Your task to perform on an android device: open a new tab in the chrome app Image 0: 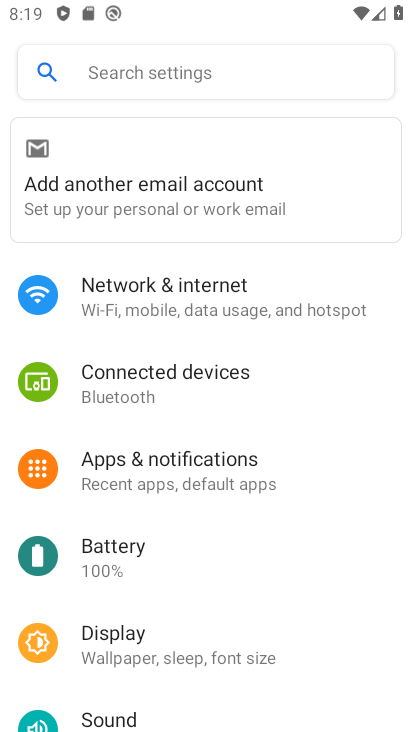
Step 0: press home button
Your task to perform on an android device: open a new tab in the chrome app Image 1: 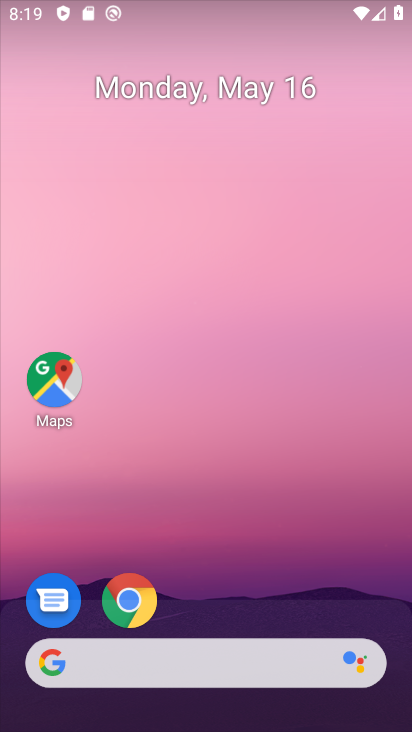
Step 1: click (161, 601)
Your task to perform on an android device: open a new tab in the chrome app Image 2: 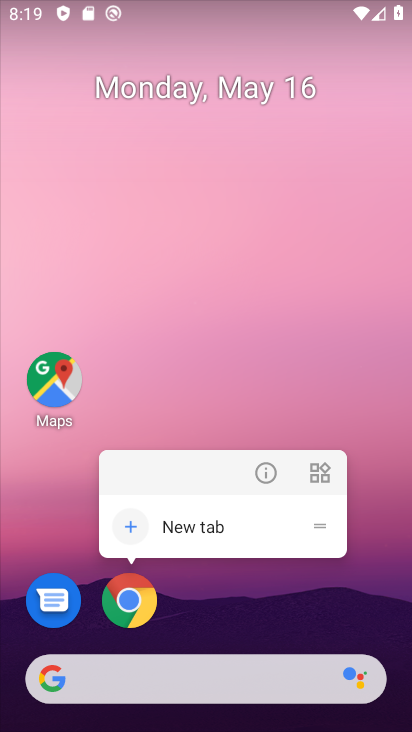
Step 2: click (139, 611)
Your task to perform on an android device: open a new tab in the chrome app Image 3: 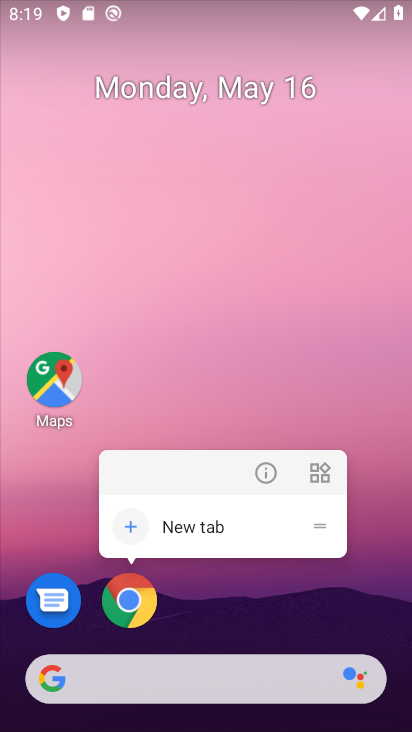
Step 3: click (124, 619)
Your task to perform on an android device: open a new tab in the chrome app Image 4: 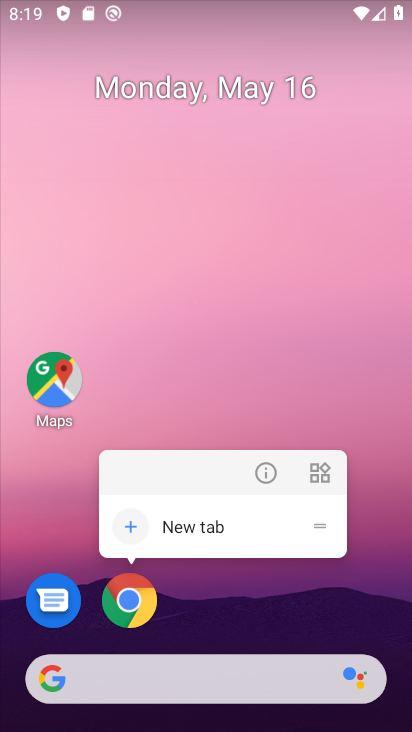
Step 4: drag from (207, 600) to (146, 55)
Your task to perform on an android device: open a new tab in the chrome app Image 5: 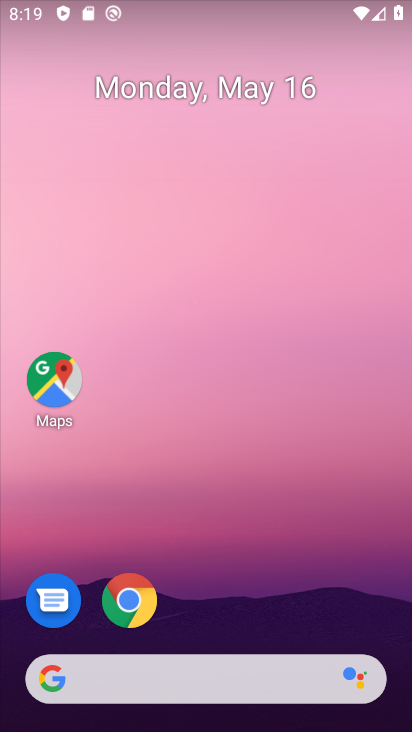
Step 5: drag from (276, 627) to (159, 10)
Your task to perform on an android device: open a new tab in the chrome app Image 6: 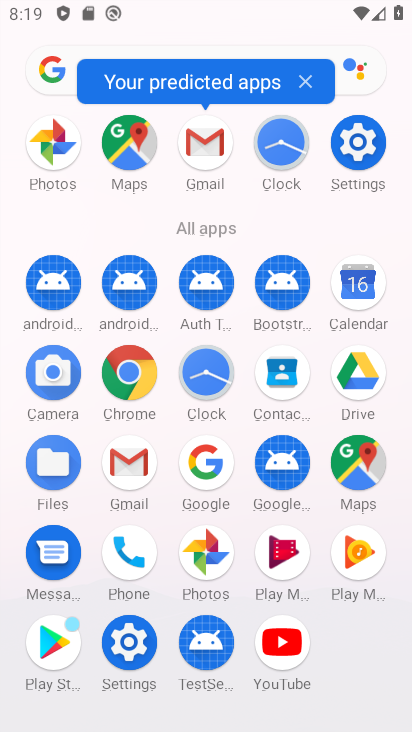
Step 6: click (136, 386)
Your task to perform on an android device: open a new tab in the chrome app Image 7: 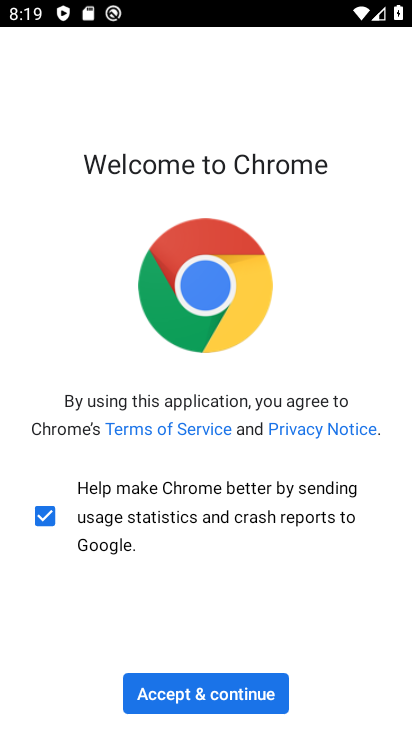
Step 7: click (185, 709)
Your task to perform on an android device: open a new tab in the chrome app Image 8: 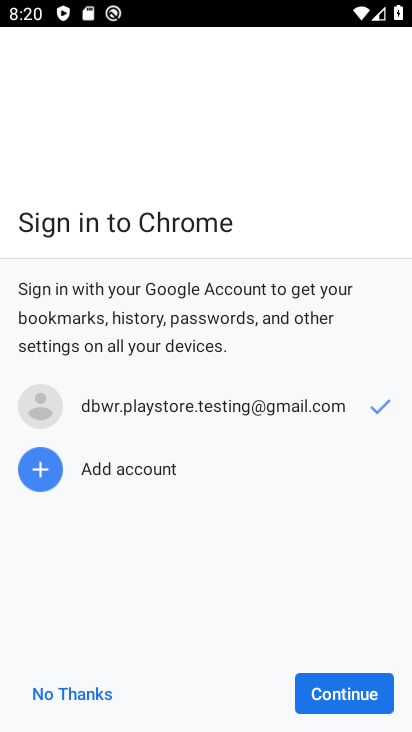
Step 8: click (318, 692)
Your task to perform on an android device: open a new tab in the chrome app Image 9: 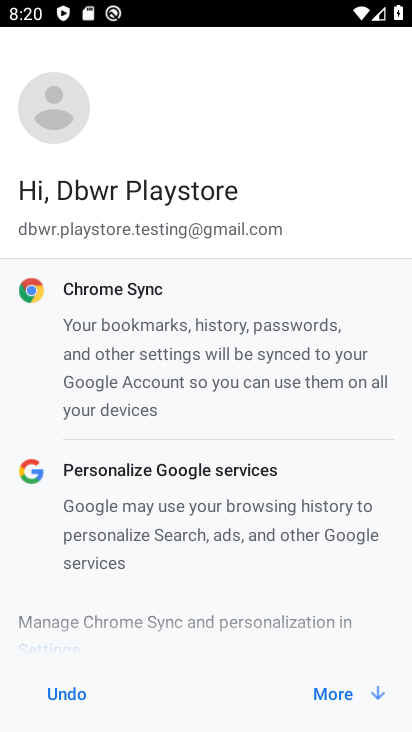
Step 9: click (318, 693)
Your task to perform on an android device: open a new tab in the chrome app Image 10: 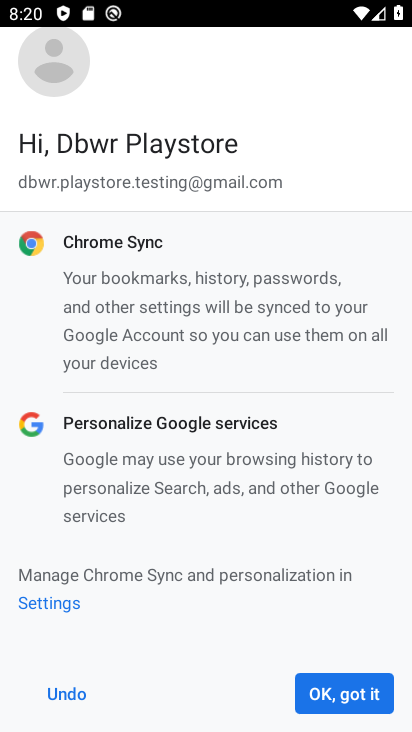
Step 10: click (318, 693)
Your task to perform on an android device: open a new tab in the chrome app Image 11: 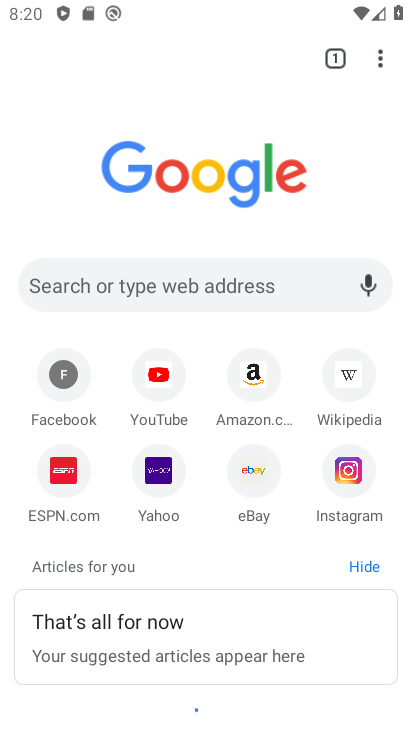
Step 11: task complete